Your task to perform on an android device: turn on sleep mode Image 0: 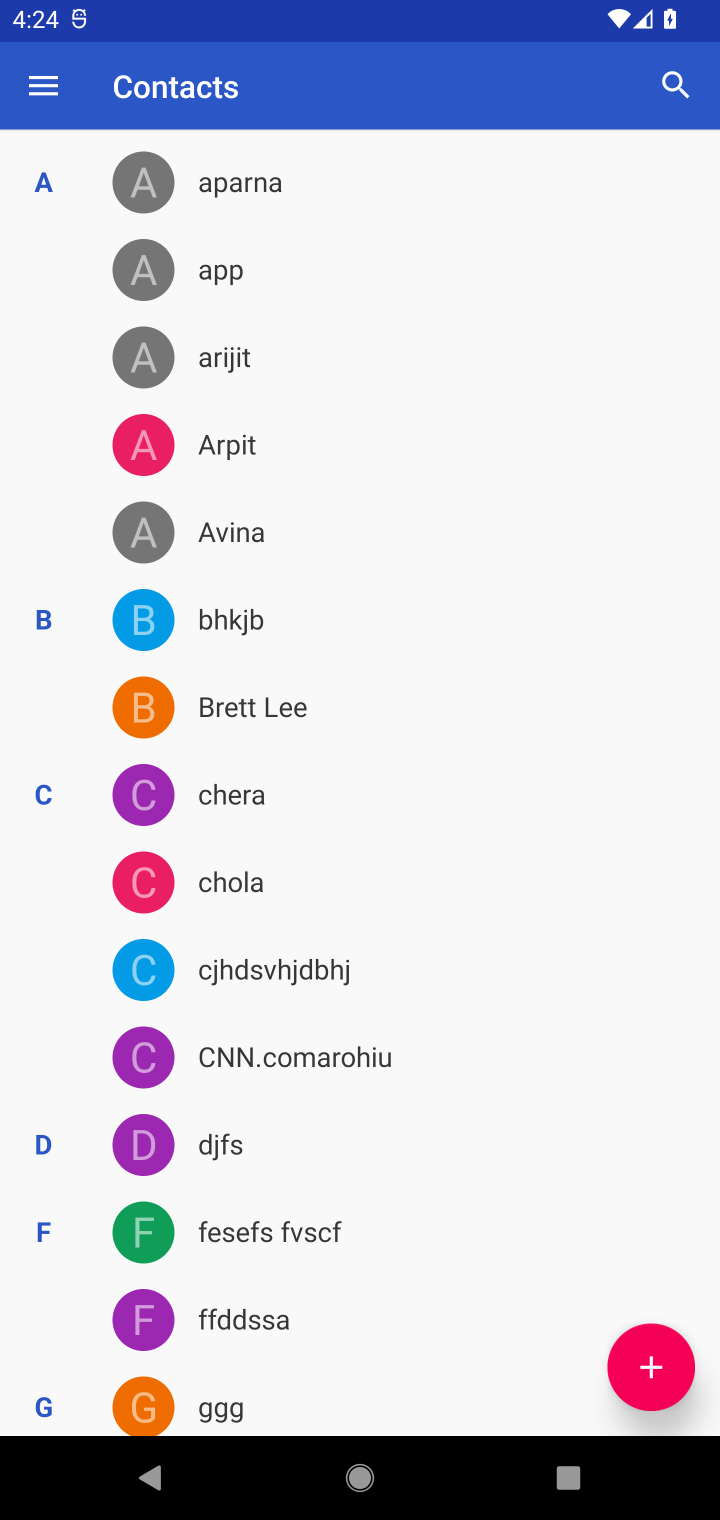
Step 0: drag from (515, 15) to (478, 1278)
Your task to perform on an android device: turn on sleep mode Image 1: 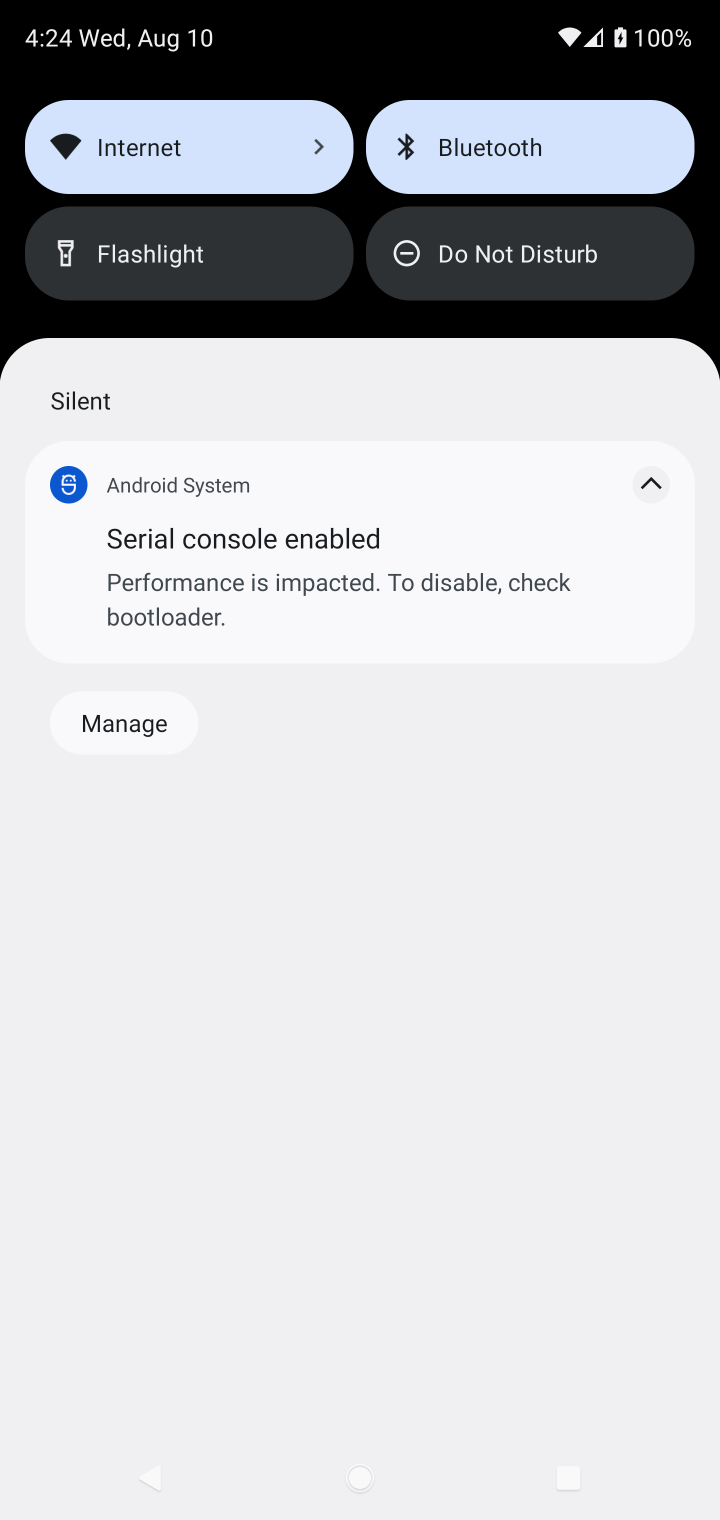
Step 1: drag from (364, 85) to (392, 1402)
Your task to perform on an android device: turn on sleep mode Image 2: 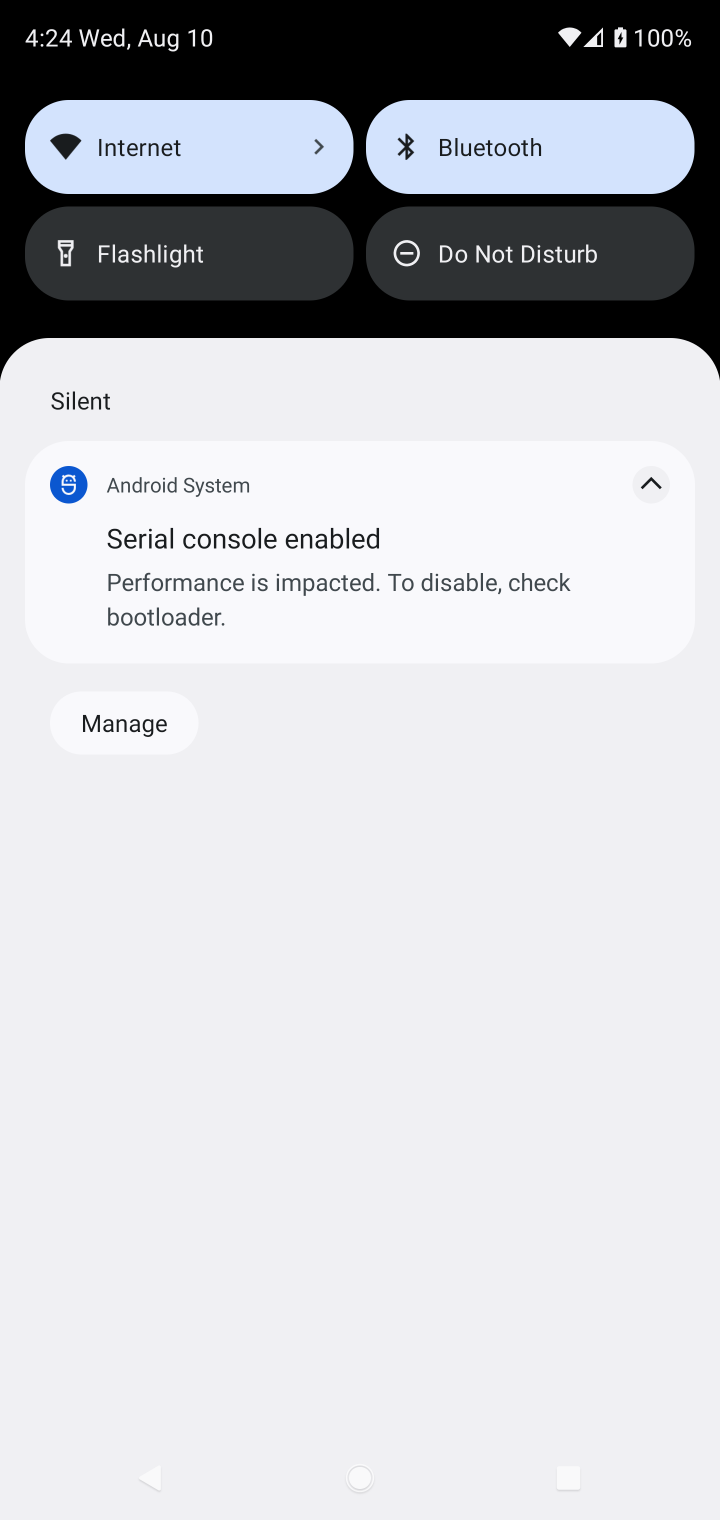
Step 2: drag from (360, 70) to (343, 1314)
Your task to perform on an android device: turn on sleep mode Image 3: 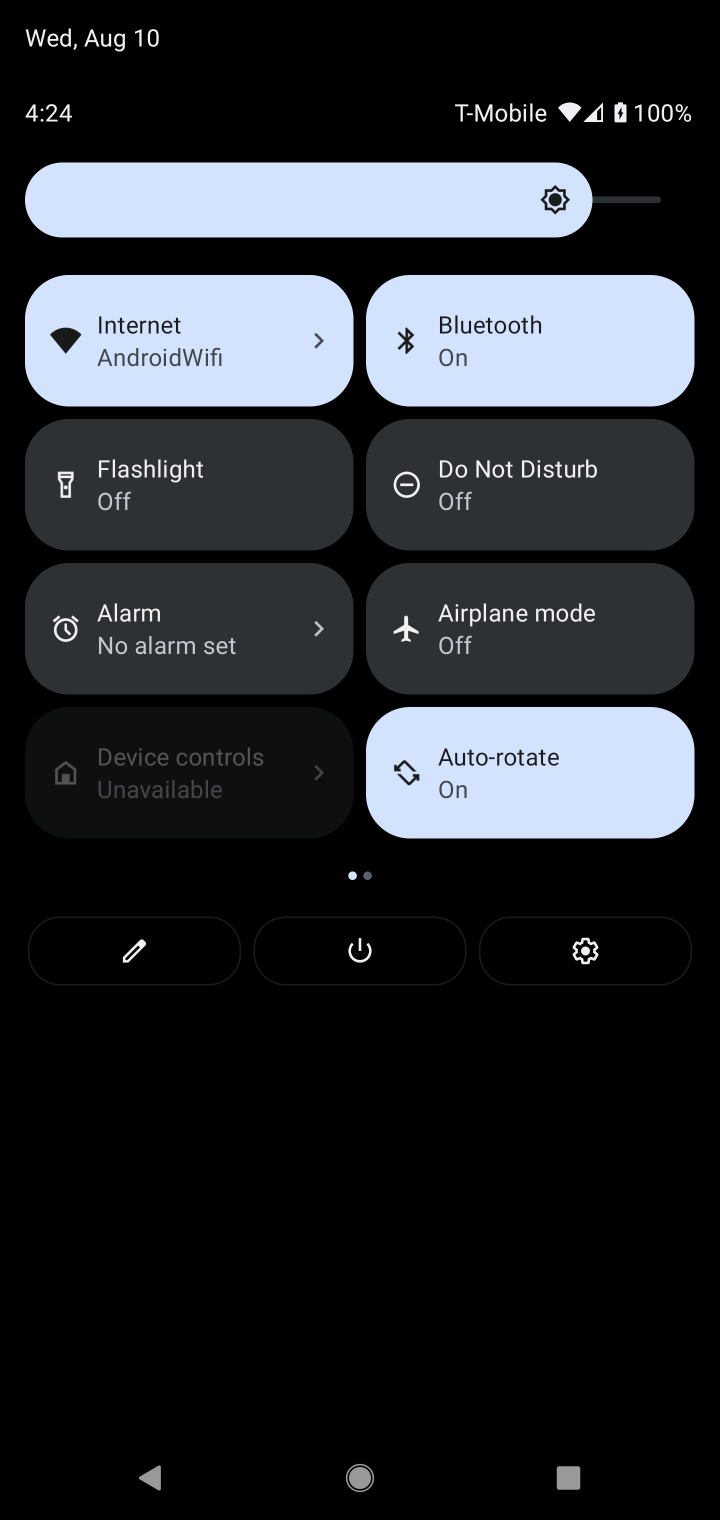
Step 3: click (595, 947)
Your task to perform on an android device: turn on sleep mode Image 4: 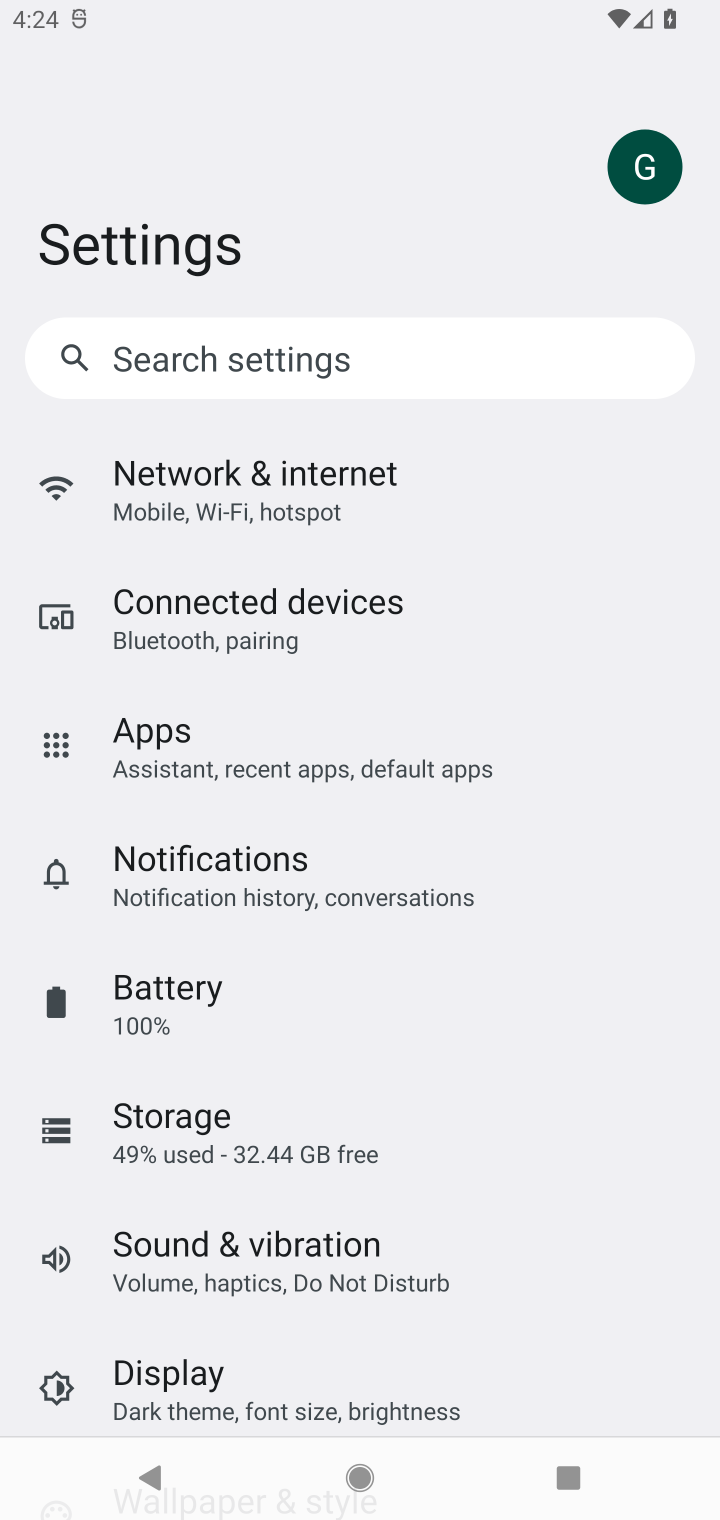
Step 4: task complete